Your task to perform on an android device: Add macbook pro 13 inch to the cart on ebay.com, then select checkout. Image 0: 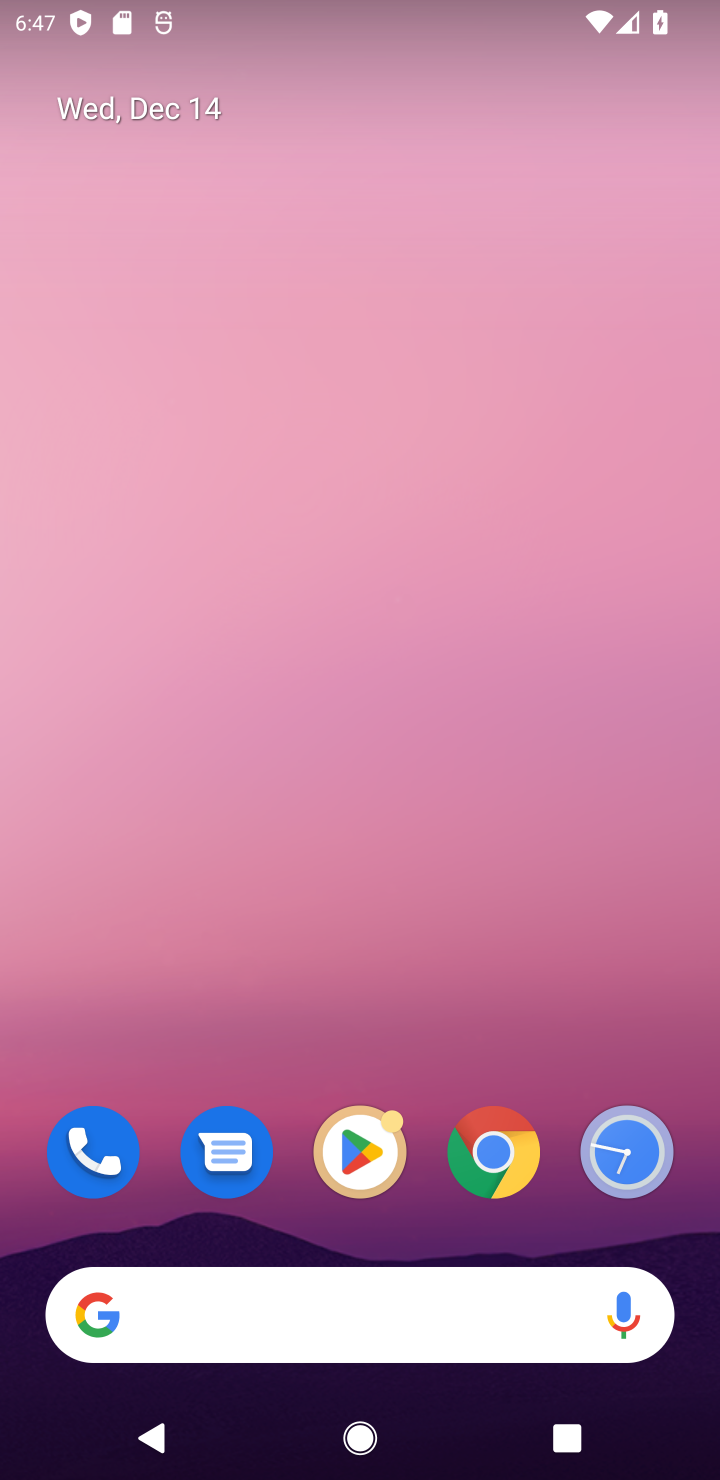
Step 0: click (517, 1150)
Your task to perform on an android device: Add macbook pro 13 inch to the cart on ebay.com, then select checkout. Image 1: 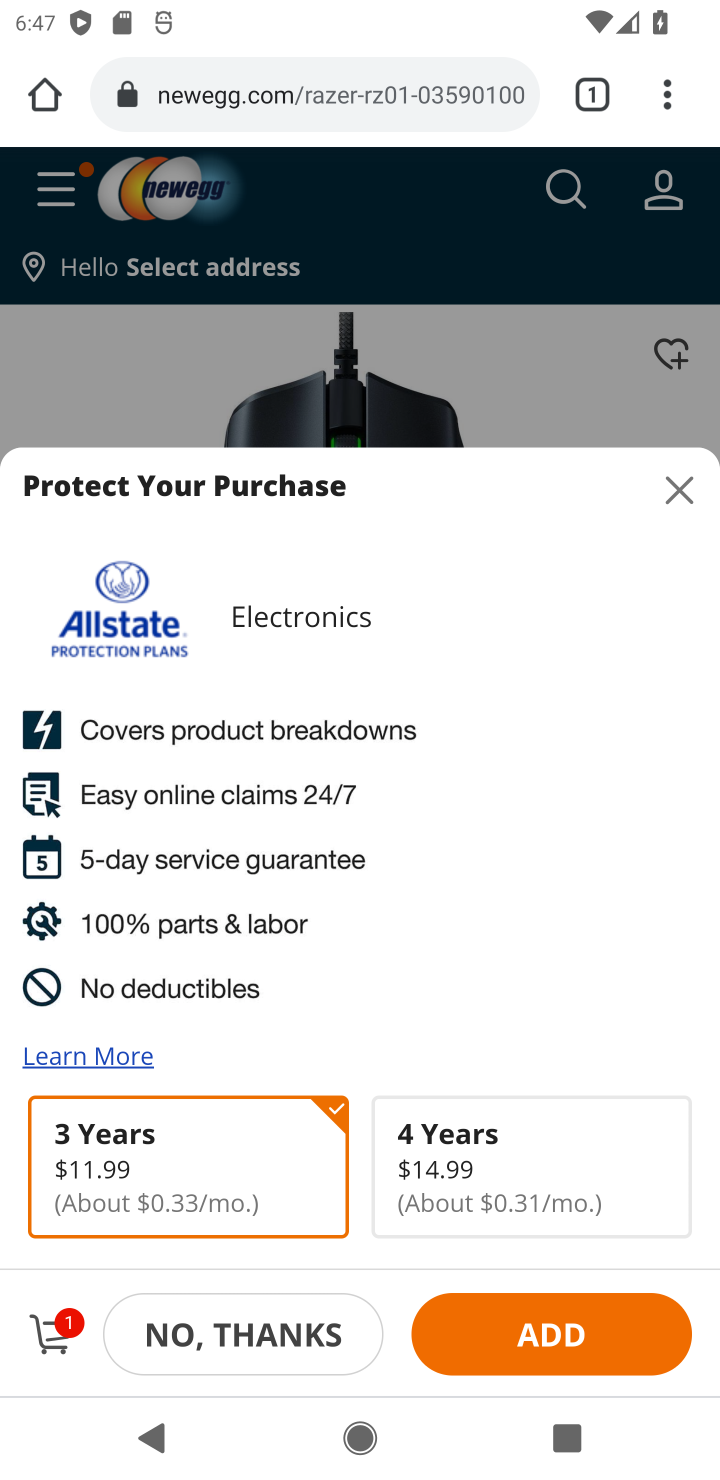
Step 1: click (246, 99)
Your task to perform on an android device: Add macbook pro 13 inch to the cart on ebay.com, then select checkout. Image 2: 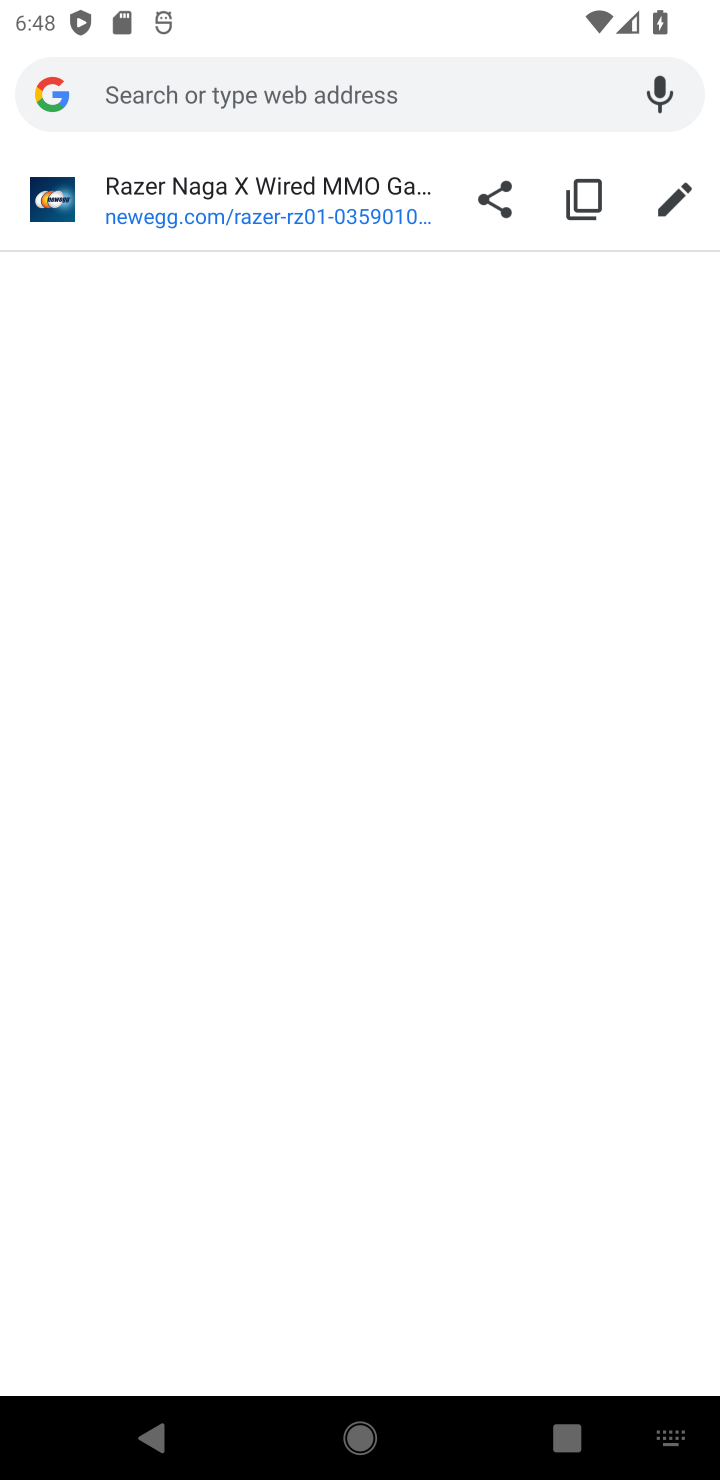
Step 2: type "ebay.com"
Your task to perform on an android device: Add macbook pro 13 inch to the cart on ebay.com, then select checkout. Image 3: 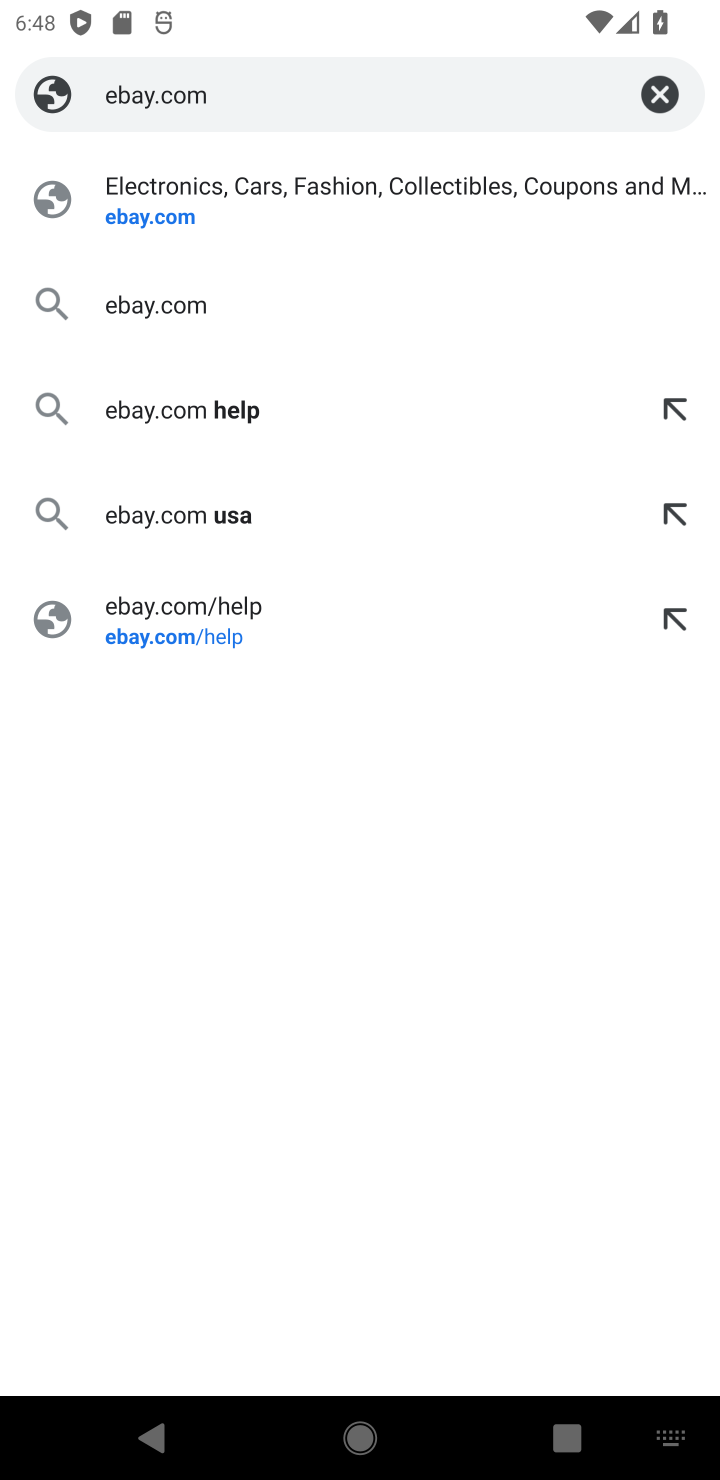
Step 3: click (139, 225)
Your task to perform on an android device: Add macbook pro 13 inch to the cart on ebay.com, then select checkout. Image 4: 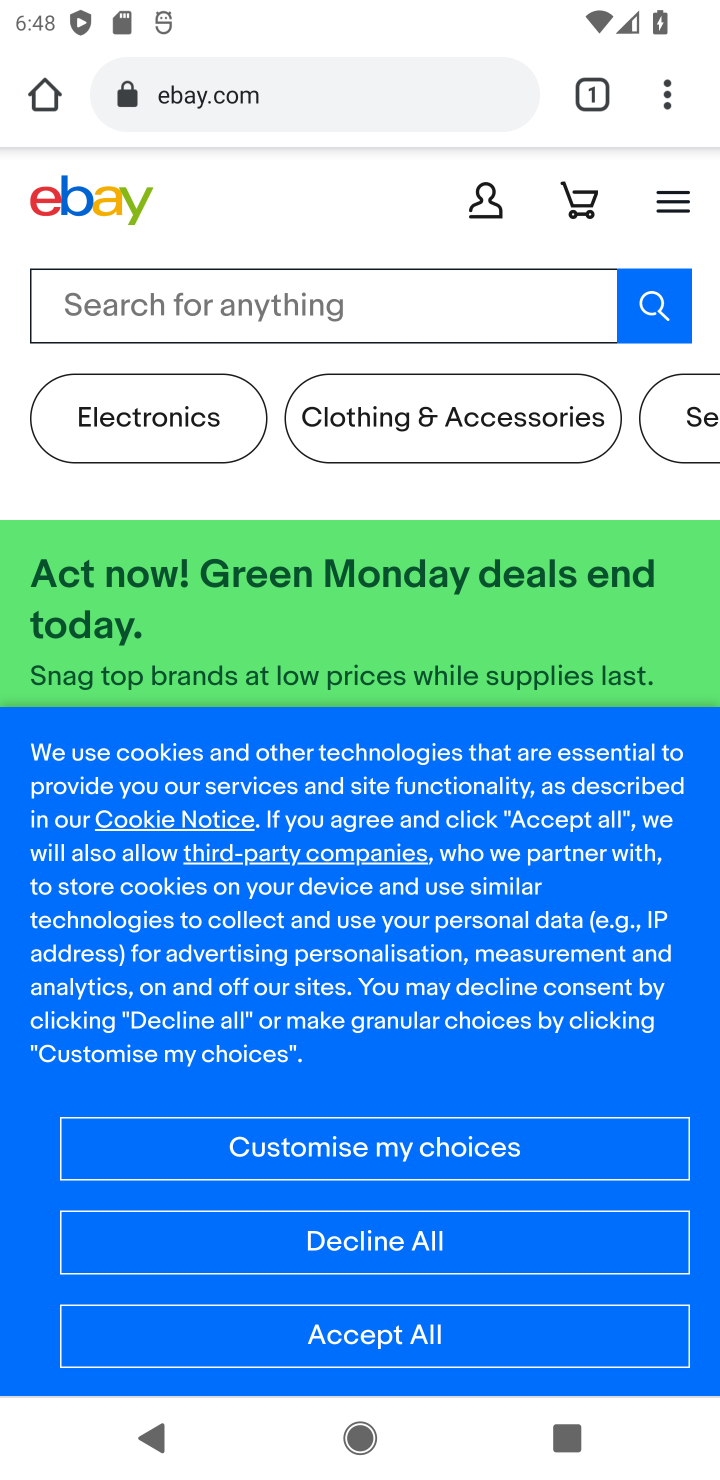
Step 4: click (133, 315)
Your task to perform on an android device: Add macbook pro 13 inch to the cart on ebay.com, then select checkout. Image 5: 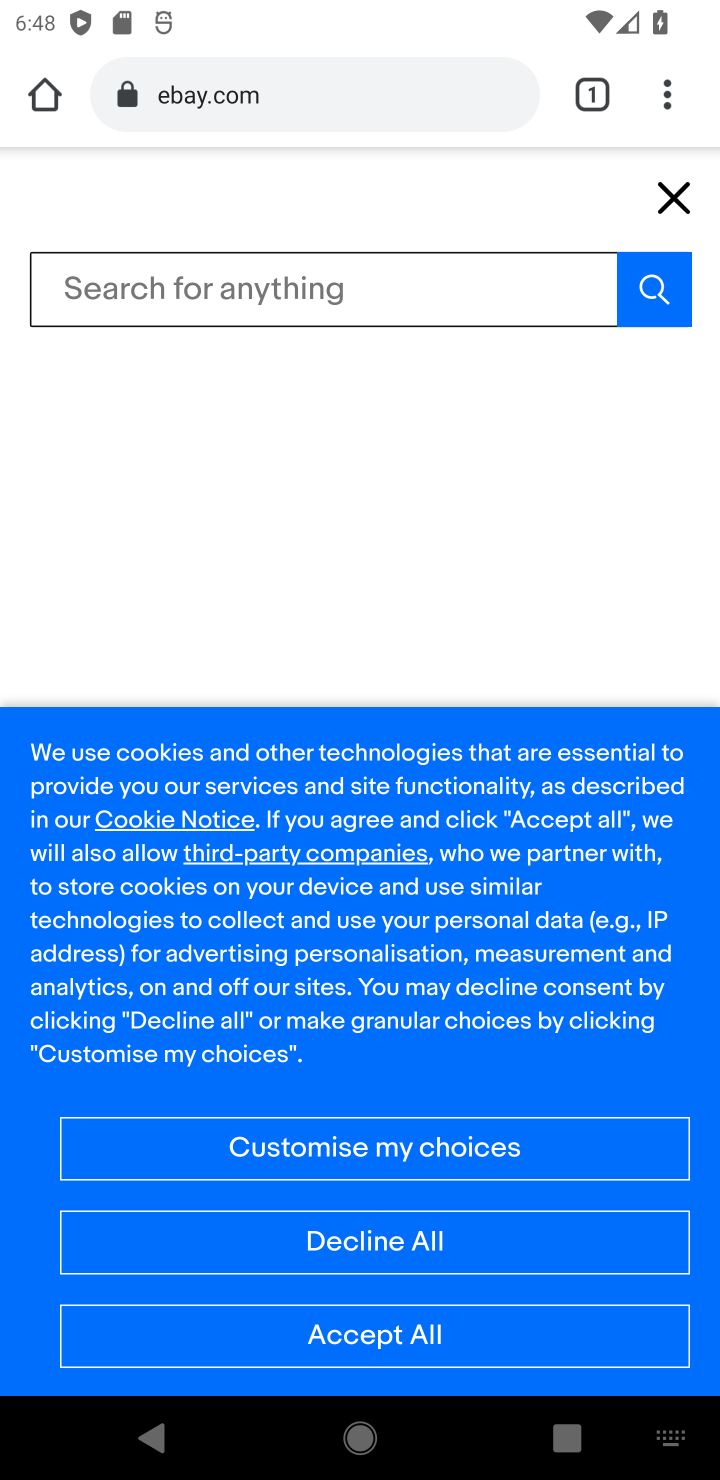
Step 5: click (121, 280)
Your task to perform on an android device: Add macbook pro 13 inch to the cart on ebay.com, then select checkout. Image 6: 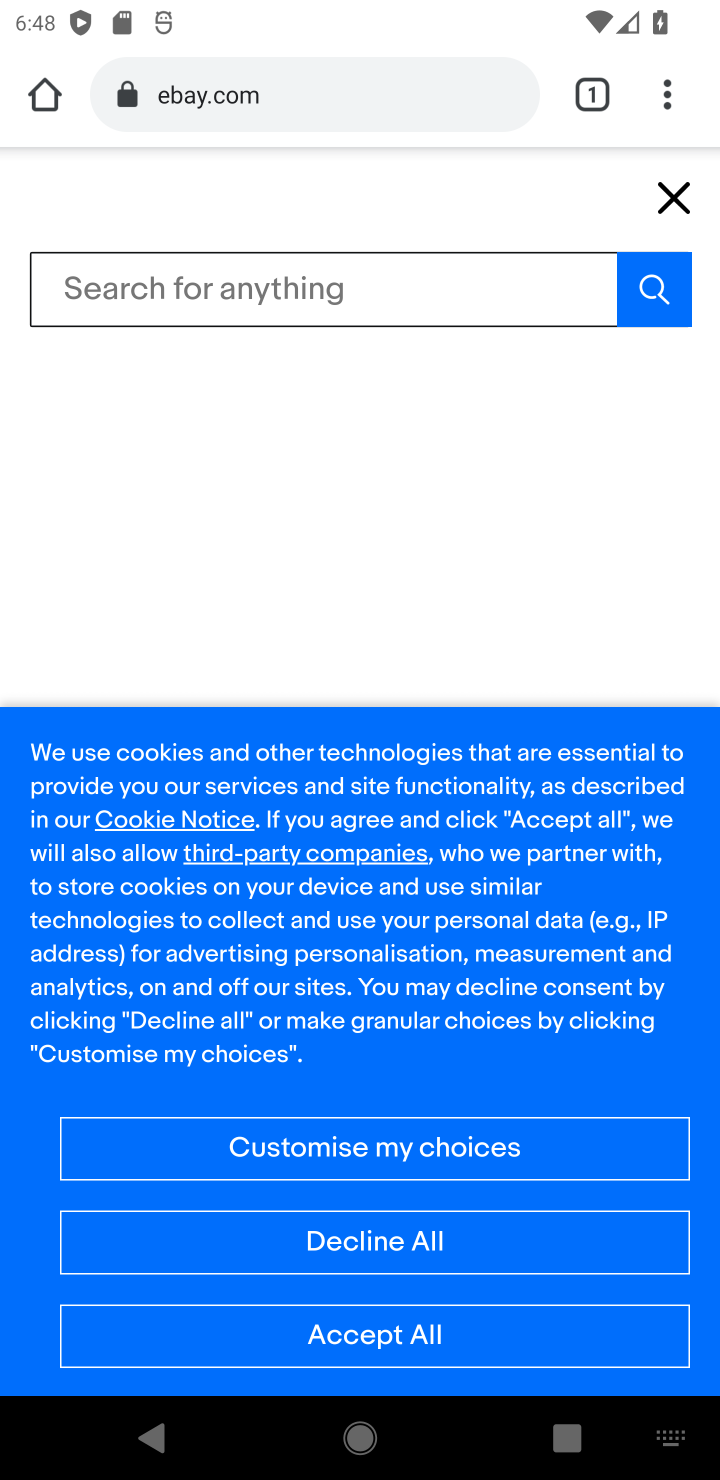
Step 6: type "macbook pro 13 inch"
Your task to perform on an android device: Add macbook pro 13 inch to the cart on ebay.com, then select checkout. Image 7: 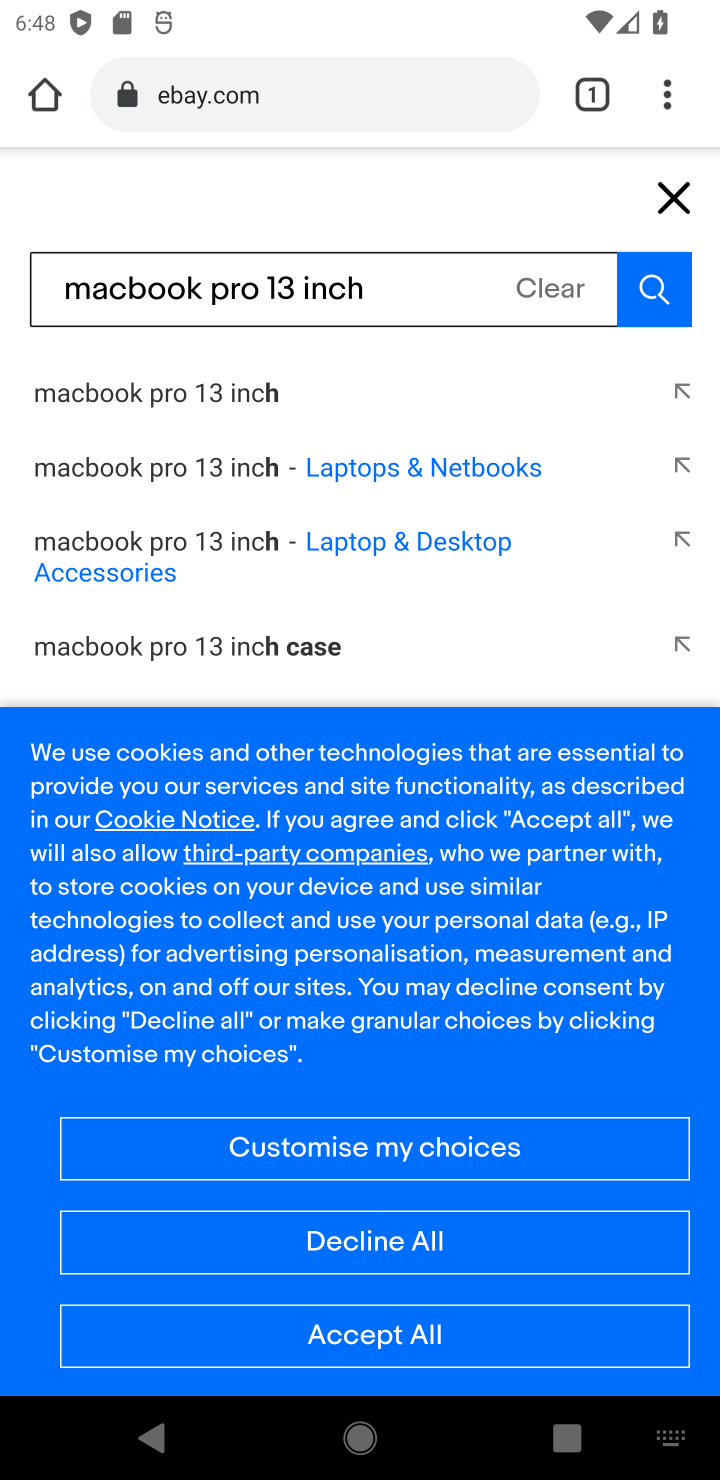
Step 7: click (216, 394)
Your task to perform on an android device: Add macbook pro 13 inch to the cart on ebay.com, then select checkout. Image 8: 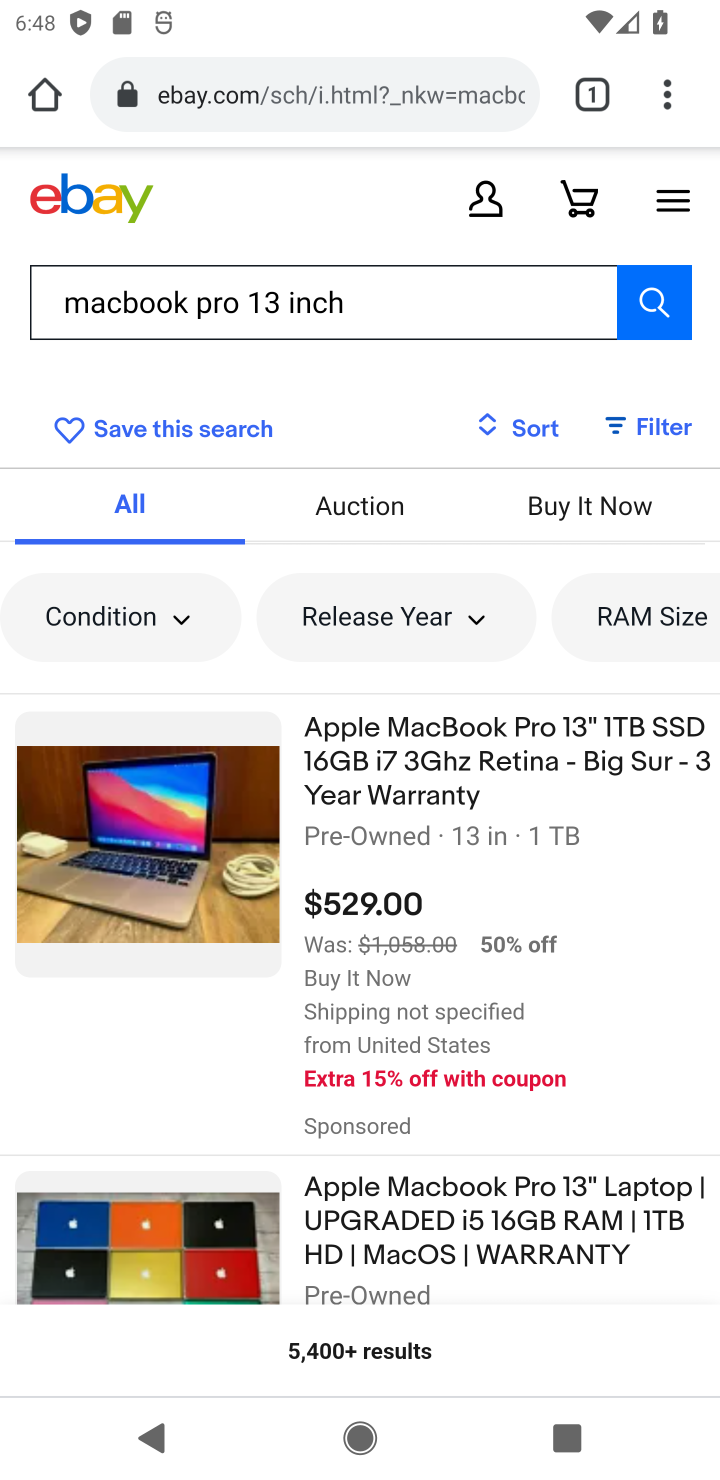
Step 8: click (350, 789)
Your task to perform on an android device: Add macbook pro 13 inch to the cart on ebay.com, then select checkout. Image 9: 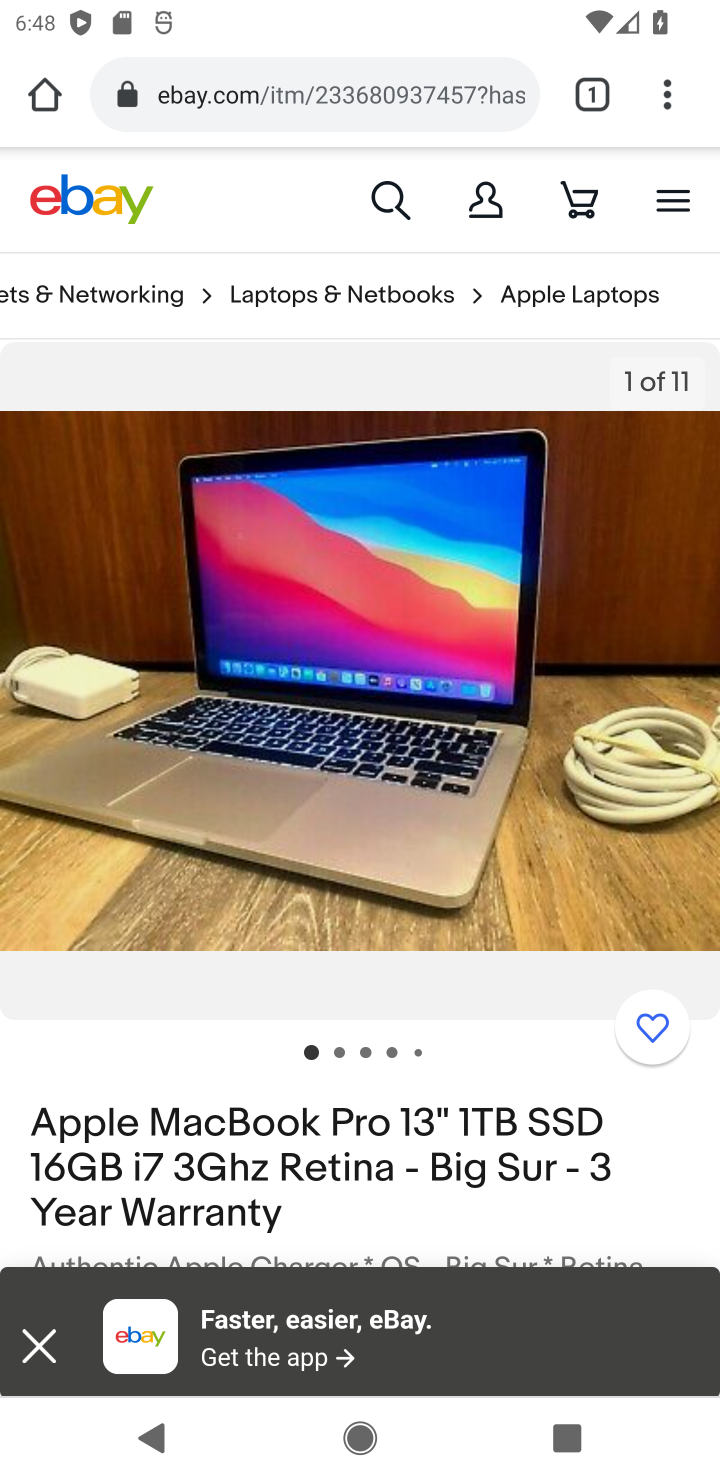
Step 9: drag from (388, 1093) to (408, 537)
Your task to perform on an android device: Add macbook pro 13 inch to the cart on ebay.com, then select checkout. Image 10: 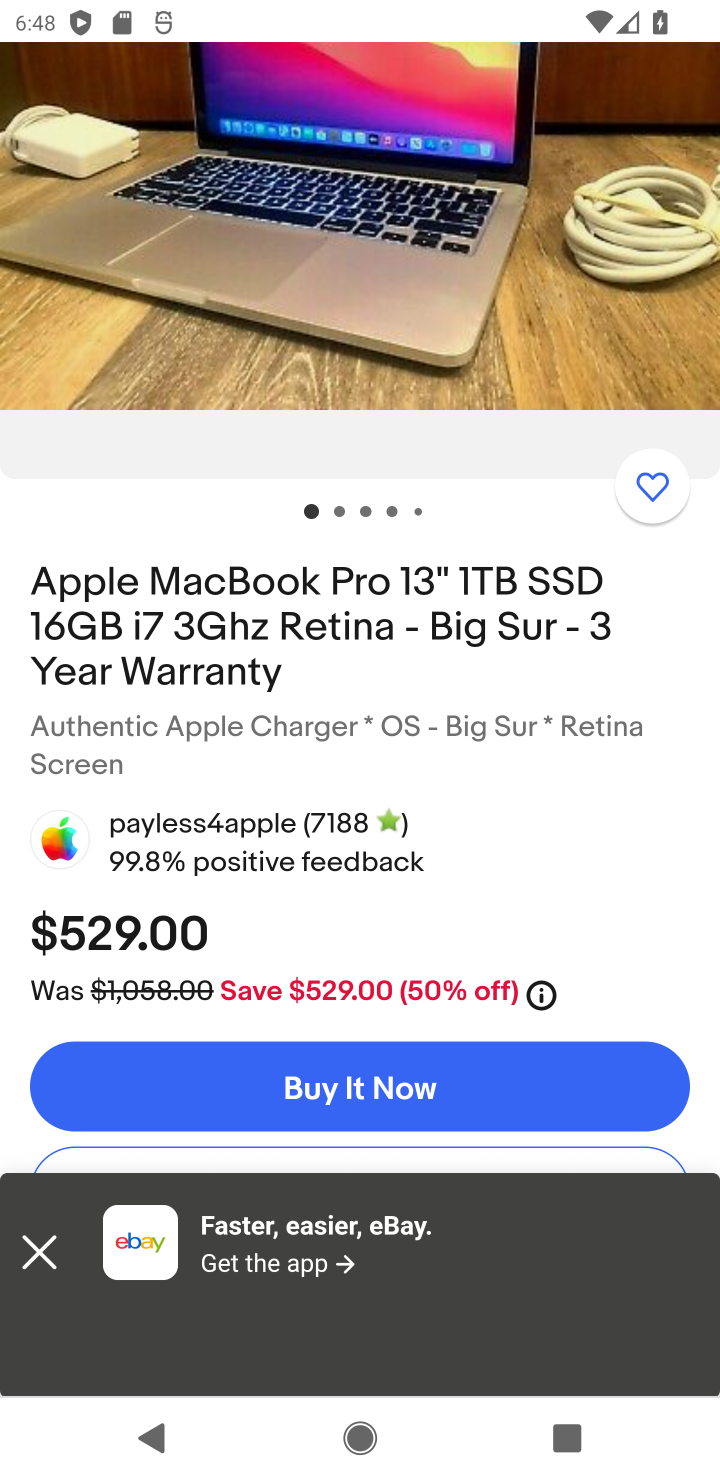
Step 10: drag from (300, 915) to (344, 507)
Your task to perform on an android device: Add macbook pro 13 inch to the cart on ebay.com, then select checkout. Image 11: 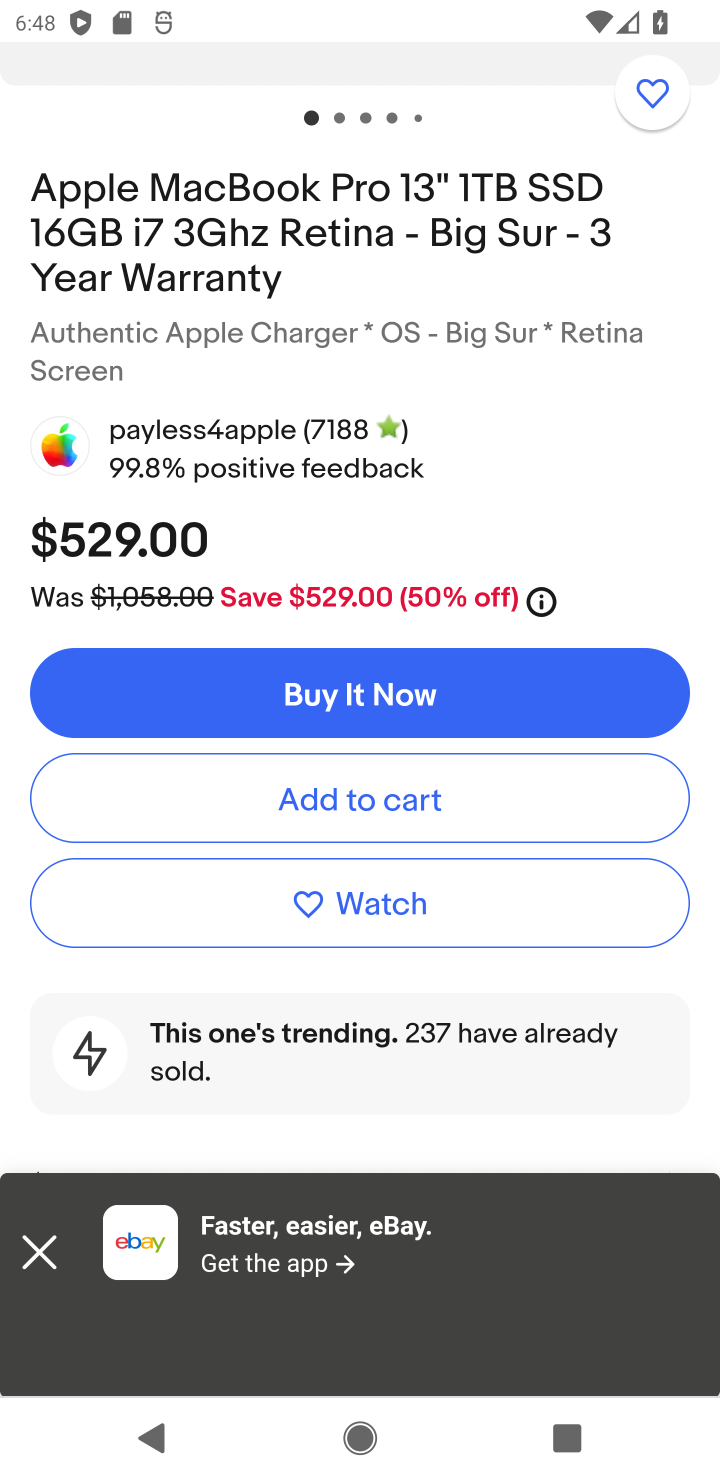
Step 11: click (313, 797)
Your task to perform on an android device: Add macbook pro 13 inch to the cart on ebay.com, then select checkout. Image 12: 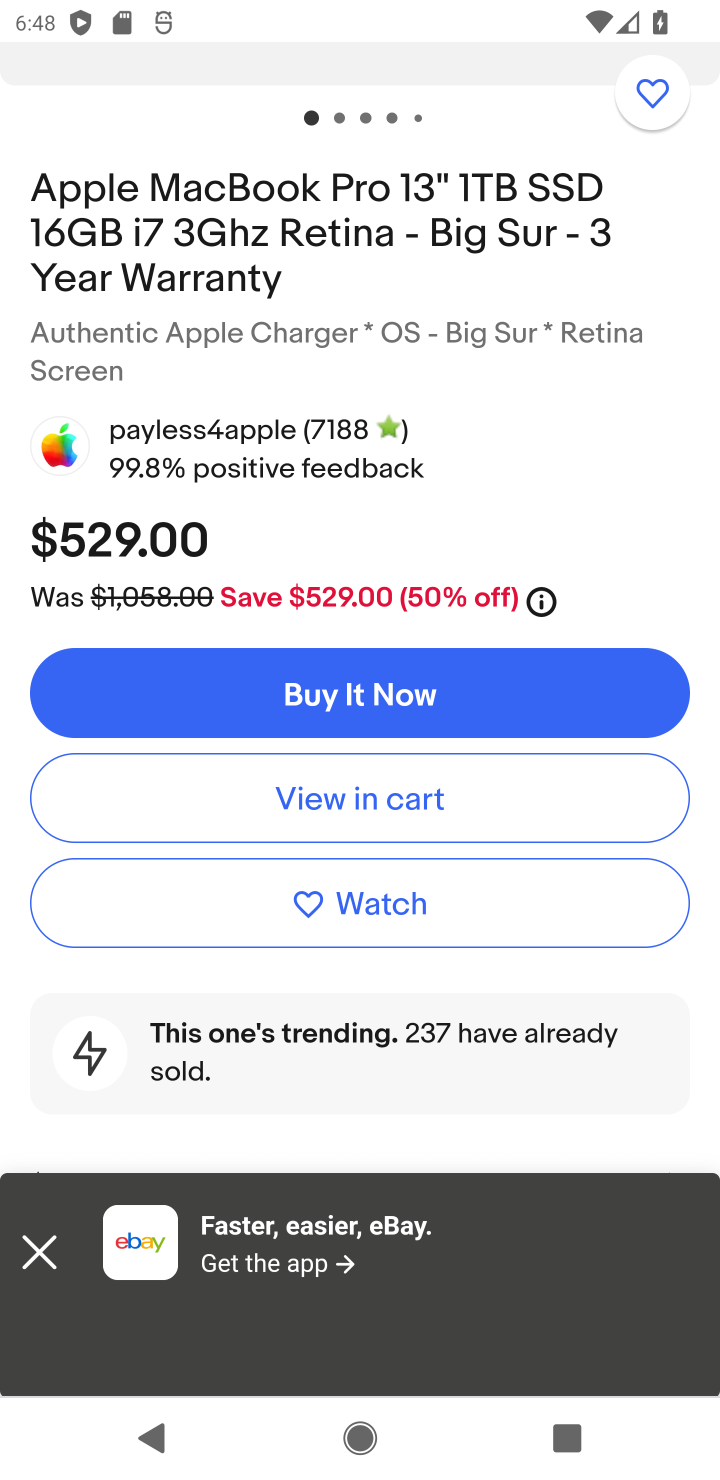
Step 12: click (313, 797)
Your task to perform on an android device: Add macbook pro 13 inch to the cart on ebay.com, then select checkout. Image 13: 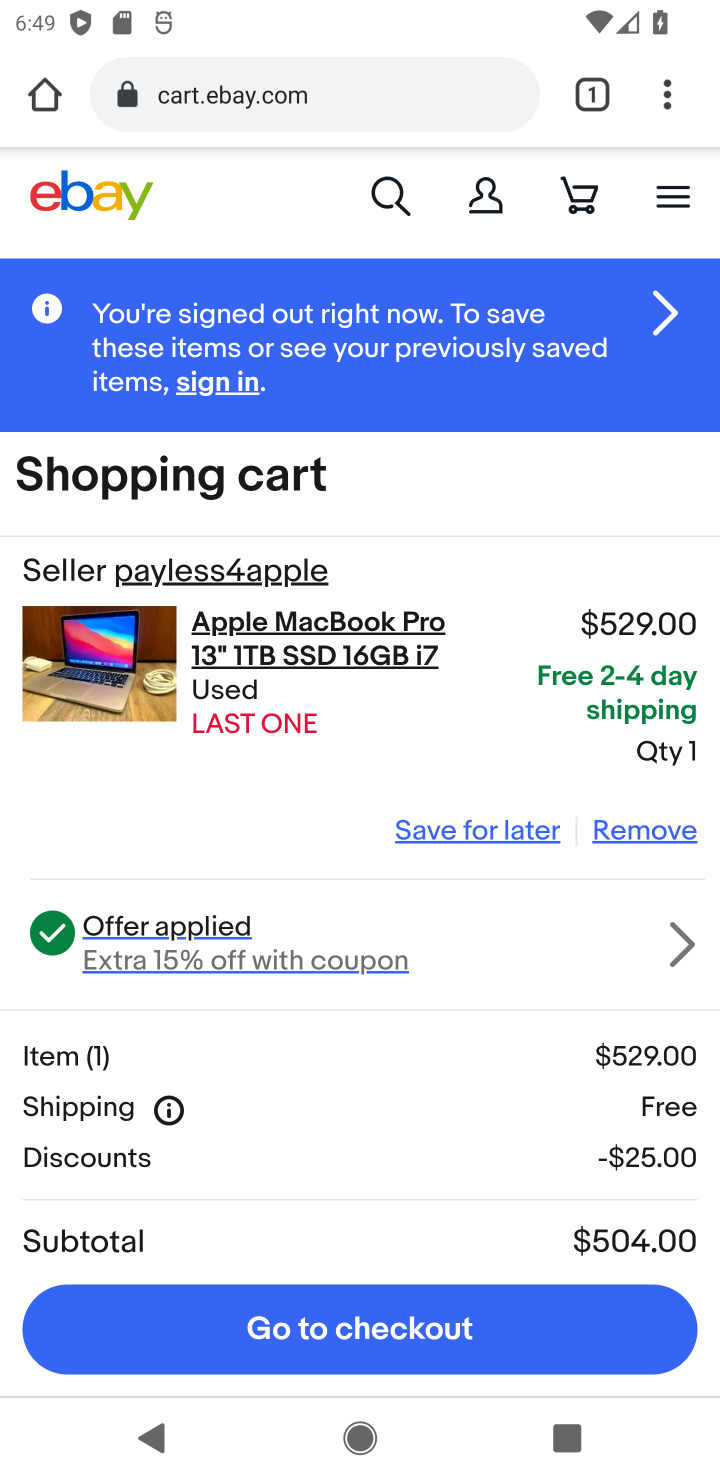
Step 13: click (394, 1327)
Your task to perform on an android device: Add macbook pro 13 inch to the cart on ebay.com, then select checkout. Image 14: 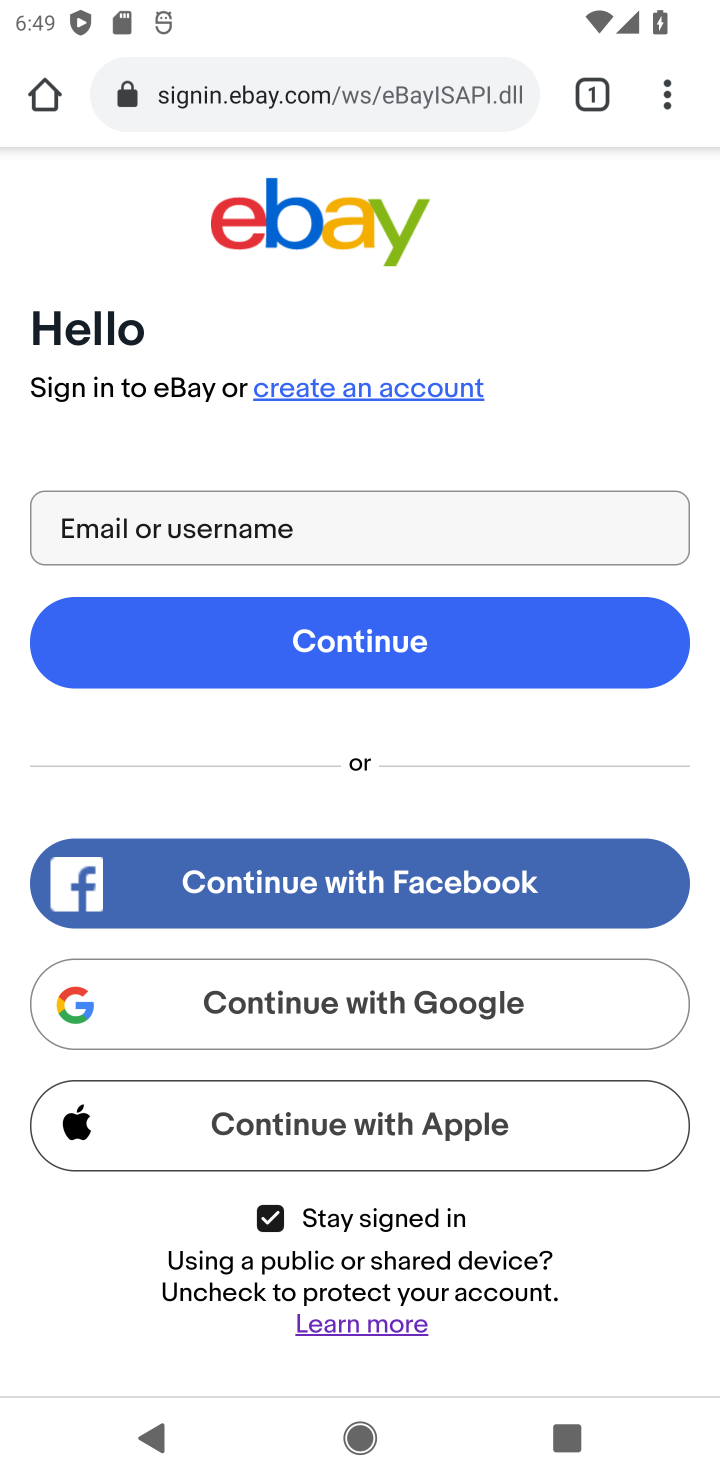
Step 14: task complete